Your task to perform on an android device: open app "Upside-Cash back on gas & food" Image 0: 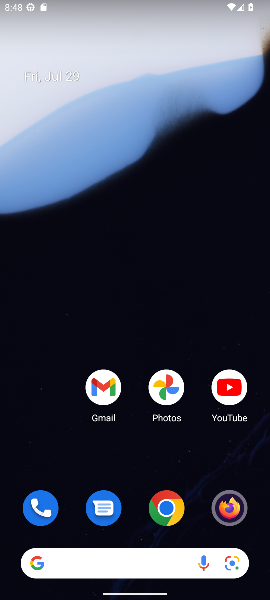
Step 0: drag from (85, 450) to (100, 40)
Your task to perform on an android device: open app "Upside-Cash back on gas & food" Image 1: 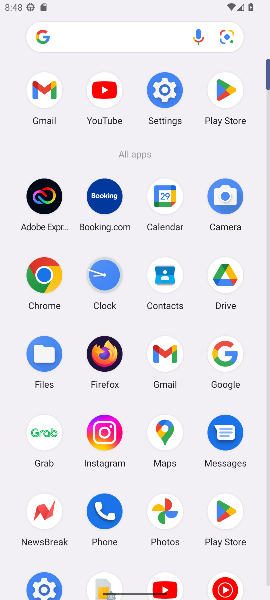
Step 1: click (225, 78)
Your task to perform on an android device: open app "Upside-Cash back on gas & food" Image 2: 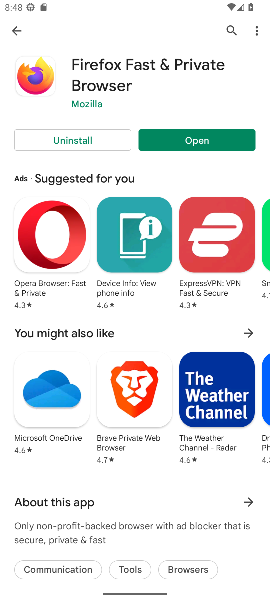
Step 2: click (224, 28)
Your task to perform on an android device: open app "Upside-Cash back on gas & food" Image 3: 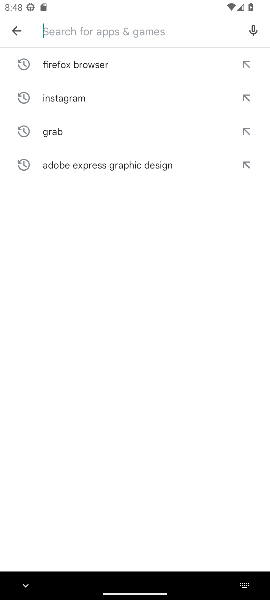
Step 3: type "Upside-Cash back on gas & food"
Your task to perform on an android device: open app "Upside-Cash back on gas & food" Image 4: 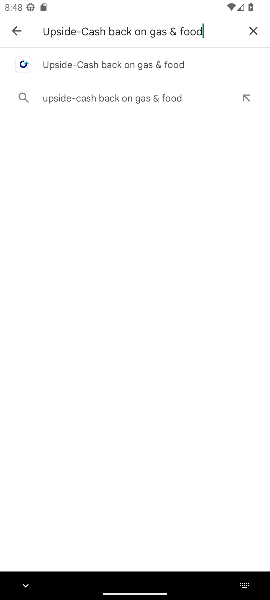
Step 4: click (189, 66)
Your task to perform on an android device: open app "Upside-Cash back on gas & food" Image 5: 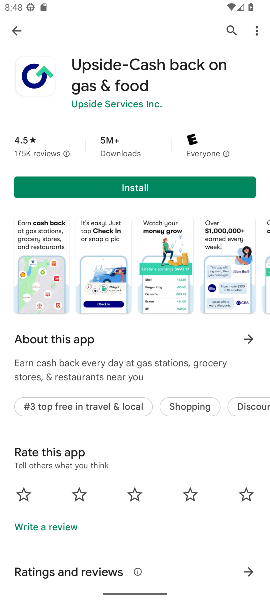
Step 5: task complete